Your task to perform on an android device: Search for seafood restaurants on Google Maps Image 0: 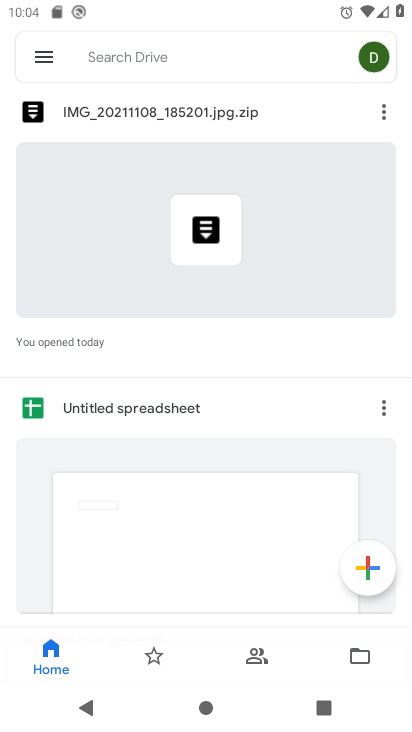
Step 0: press home button
Your task to perform on an android device: Search for seafood restaurants on Google Maps Image 1: 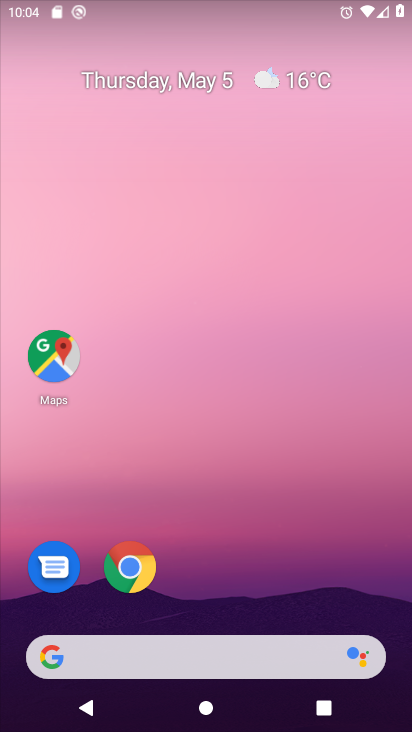
Step 1: drag from (235, 505) to (242, 15)
Your task to perform on an android device: Search for seafood restaurants on Google Maps Image 2: 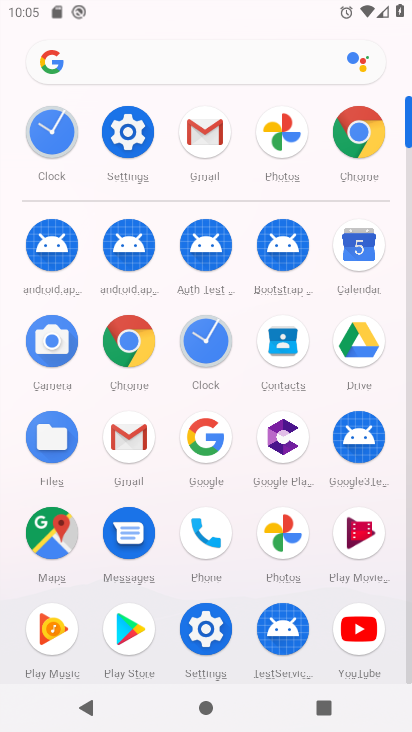
Step 2: drag from (238, 399) to (250, 160)
Your task to perform on an android device: Search for seafood restaurants on Google Maps Image 3: 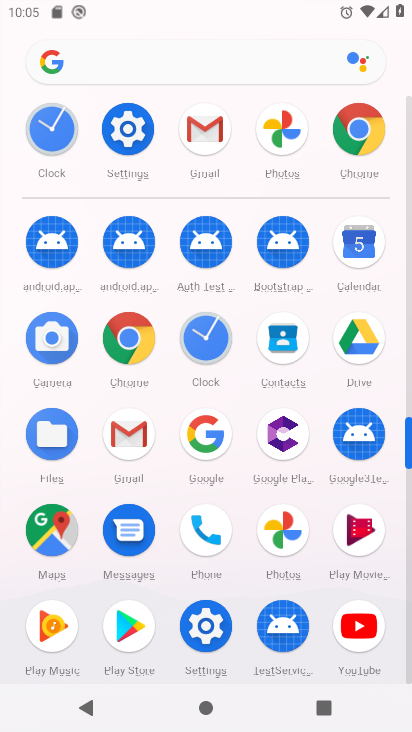
Step 3: click (45, 529)
Your task to perform on an android device: Search for seafood restaurants on Google Maps Image 4: 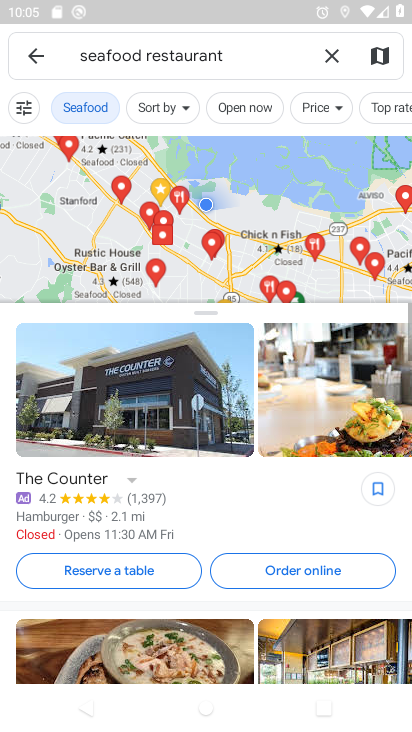
Step 4: task complete